Your task to perform on an android device: Go to Google Image 0: 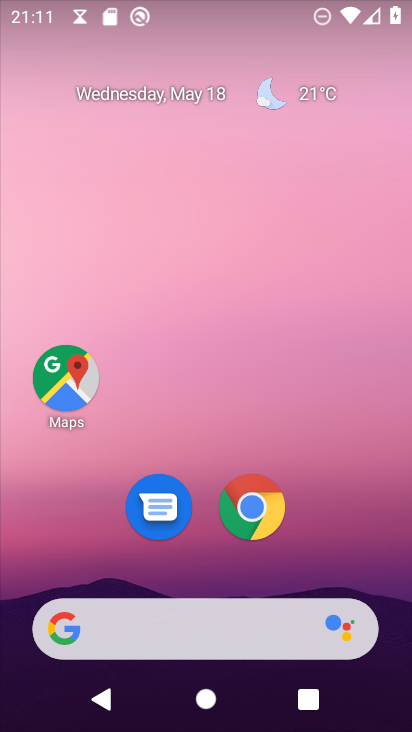
Step 0: drag from (395, 604) to (334, 259)
Your task to perform on an android device: Go to Google Image 1: 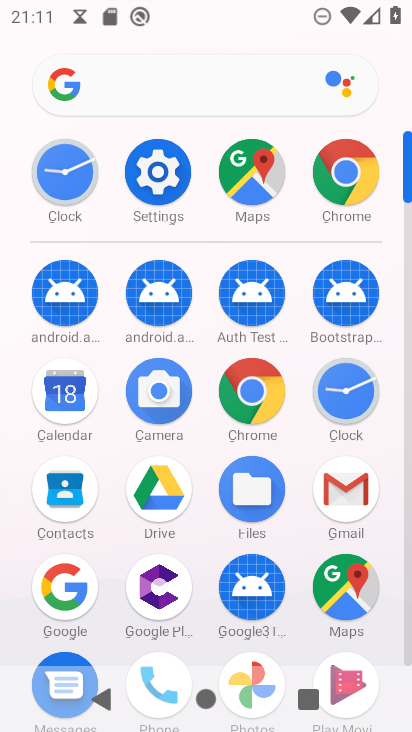
Step 1: click (63, 588)
Your task to perform on an android device: Go to Google Image 2: 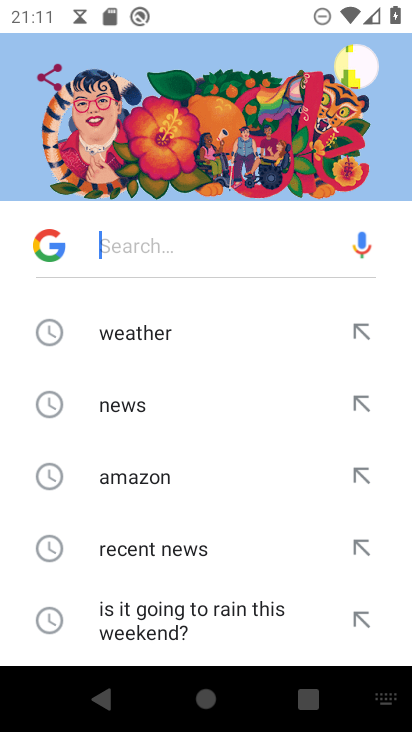
Step 2: task complete